Your task to perform on an android device: check android version Image 0: 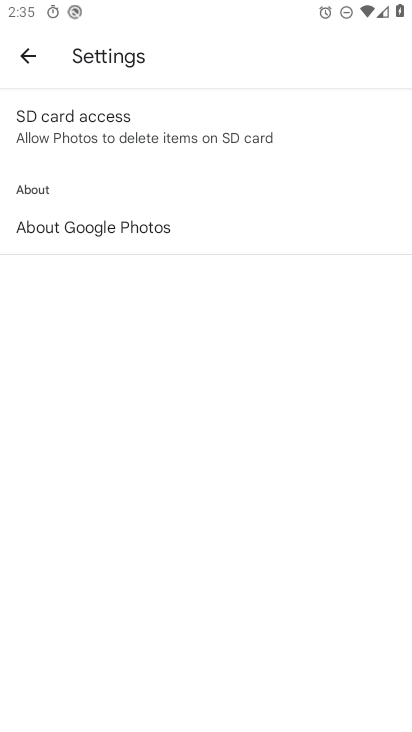
Step 0: drag from (175, 651) to (163, 228)
Your task to perform on an android device: check android version Image 1: 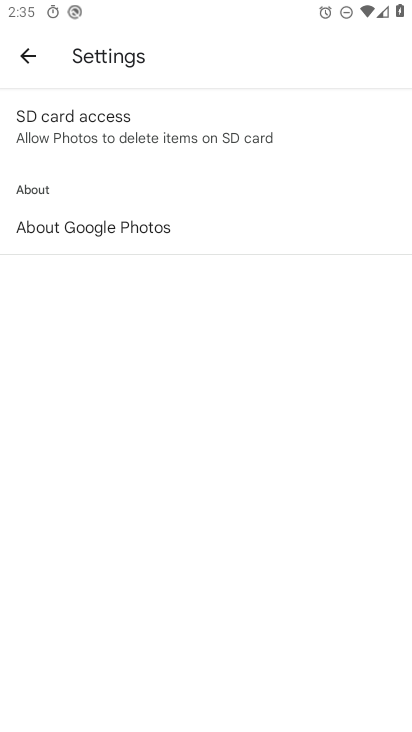
Step 1: press home button
Your task to perform on an android device: check android version Image 2: 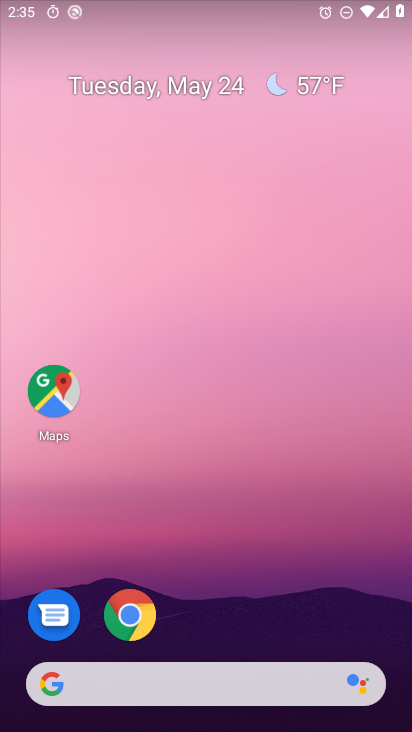
Step 2: drag from (175, 527) to (175, 138)
Your task to perform on an android device: check android version Image 3: 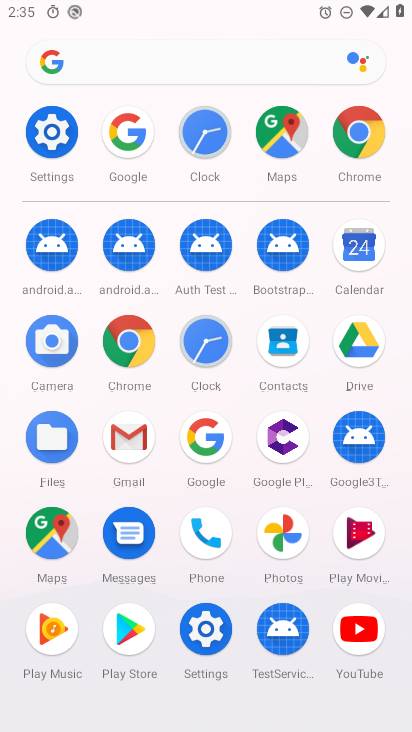
Step 3: click (50, 130)
Your task to perform on an android device: check android version Image 4: 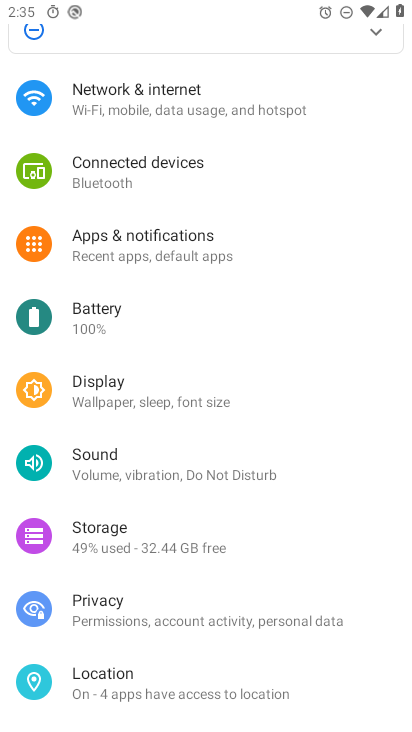
Step 4: drag from (193, 679) to (188, 189)
Your task to perform on an android device: check android version Image 5: 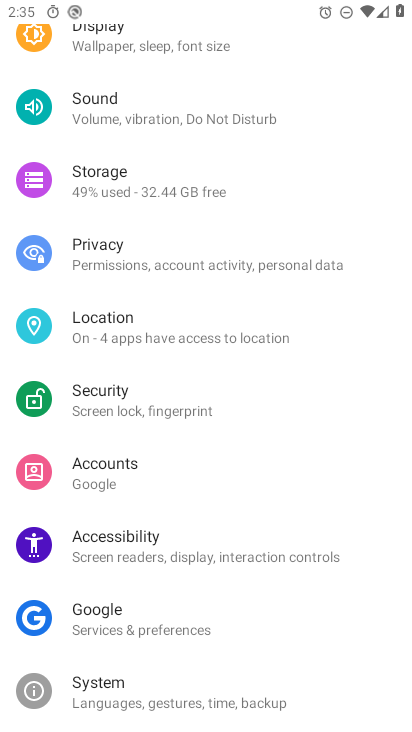
Step 5: drag from (148, 716) to (156, 299)
Your task to perform on an android device: check android version Image 6: 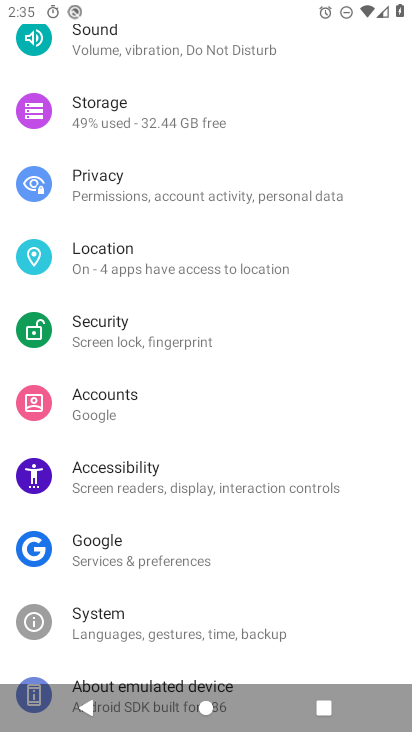
Step 6: click (136, 679)
Your task to perform on an android device: check android version Image 7: 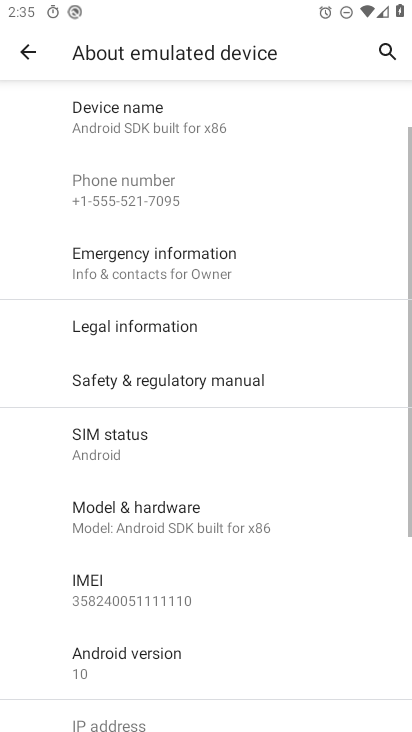
Step 7: click (162, 656)
Your task to perform on an android device: check android version Image 8: 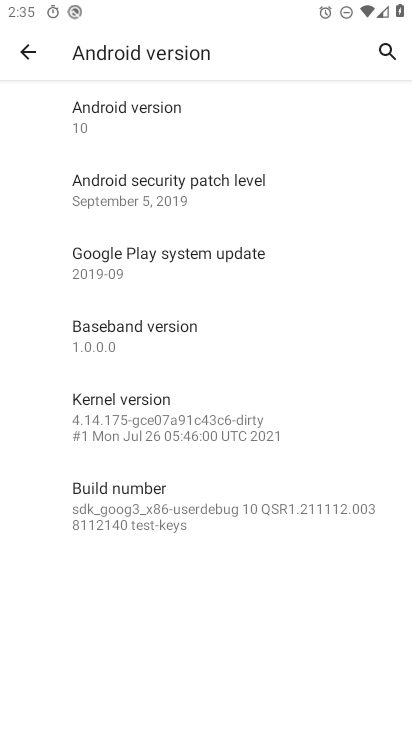
Step 8: task complete